Your task to perform on an android device: all mails in gmail Image 0: 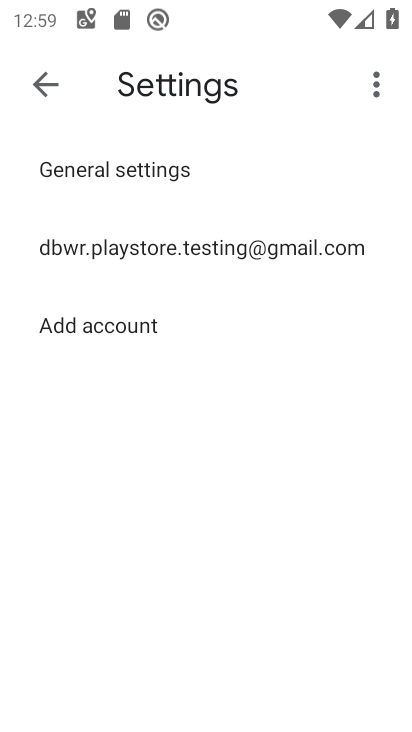
Step 0: press back button
Your task to perform on an android device: all mails in gmail Image 1: 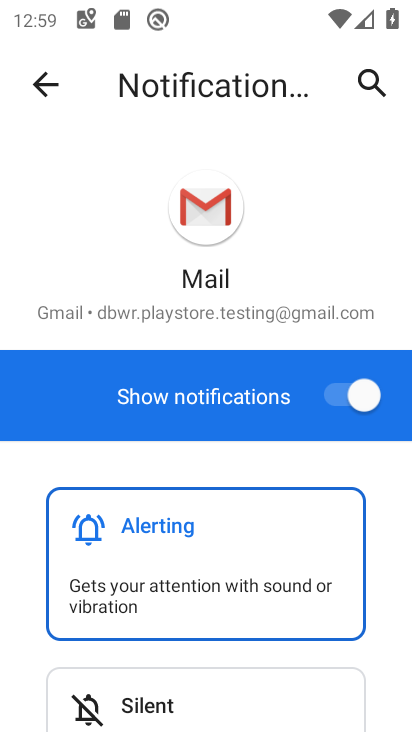
Step 1: press back button
Your task to perform on an android device: all mails in gmail Image 2: 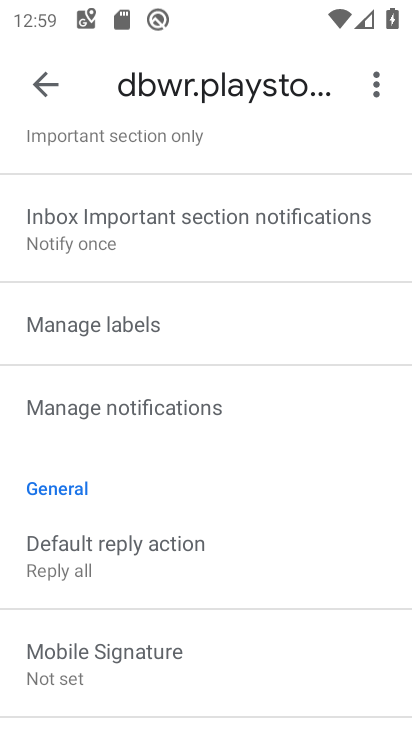
Step 2: press home button
Your task to perform on an android device: all mails in gmail Image 3: 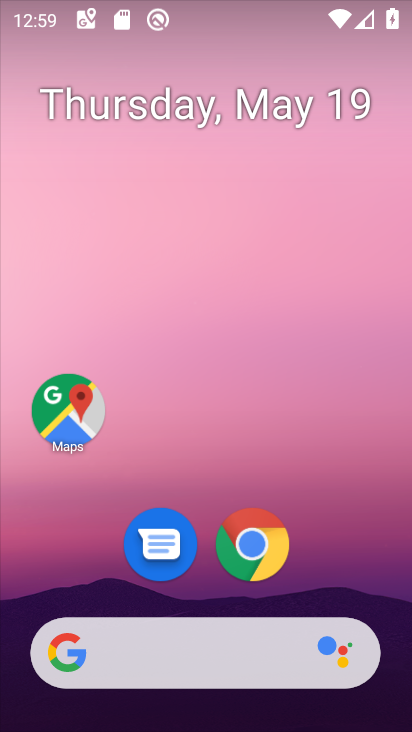
Step 3: drag from (165, 607) to (166, 81)
Your task to perform on an android device: all mails in gmail Image 4: 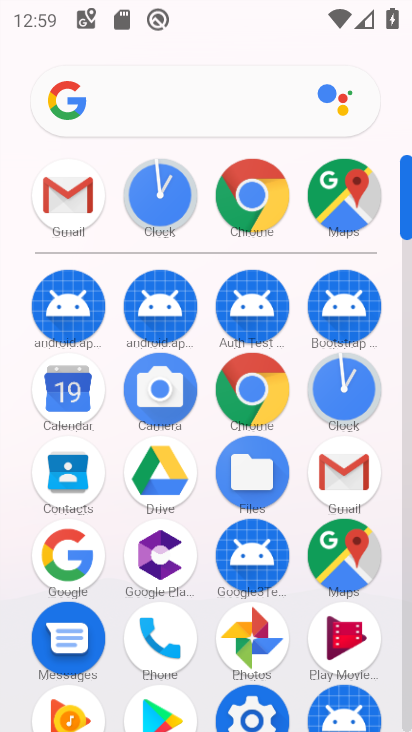
Step 4: click (376, 476)
Your task to perform on an android device: all mails in gmail Image 5: 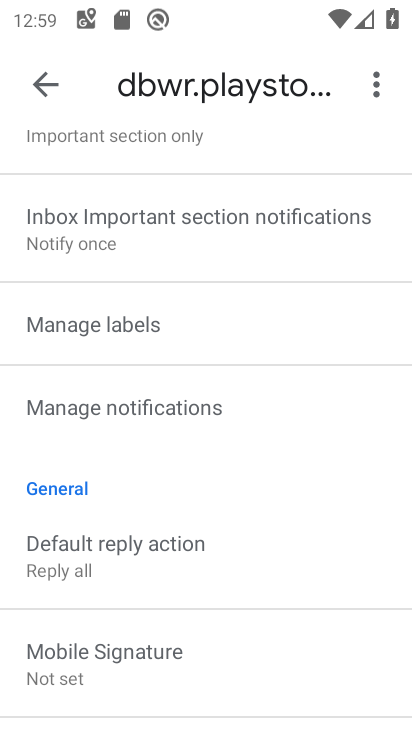
Step 5: press back button
Your task to perform on an android device: all mails in gmail Image 6: 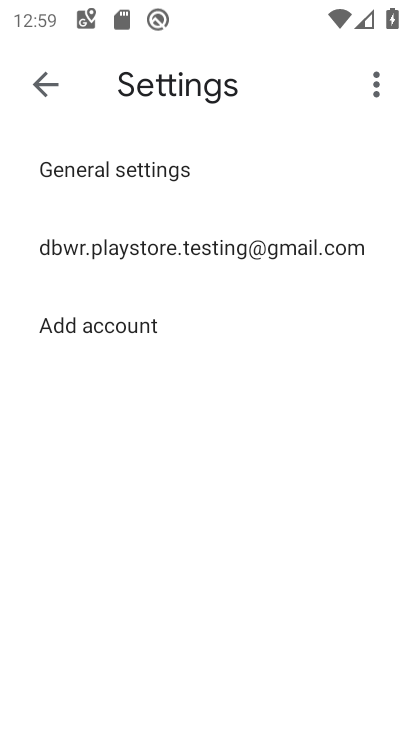
Step 6: press back button
Your task to perform on an android device: all mails in gmail Image 7: 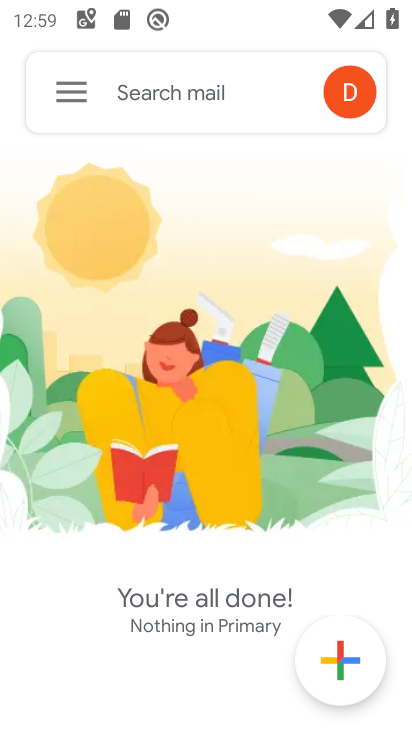
Step 7: click (84, 93)
Your task to perform on an android device: all mails in gmail Image 8: 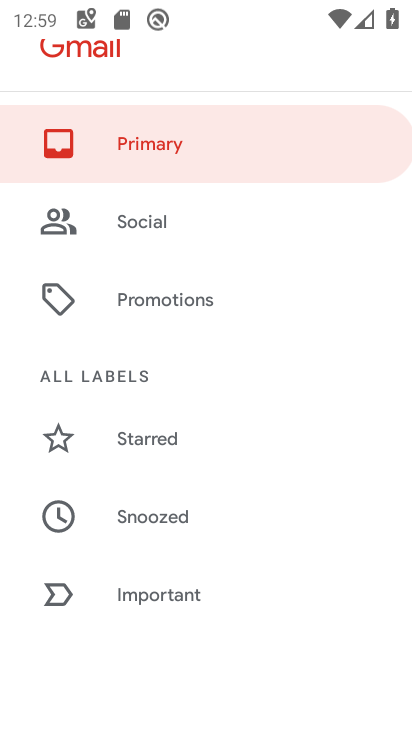
Step 8: drag from (213, 619) to (160, 132)
Your task to perform on an android device: all mails in gmail Image 9: 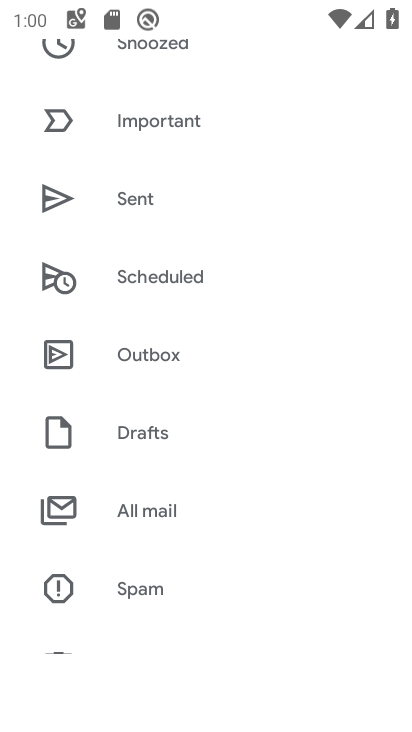
Step 9: click (152, 512)
Your task to perform on an android device: all mails in gmail Image 10: 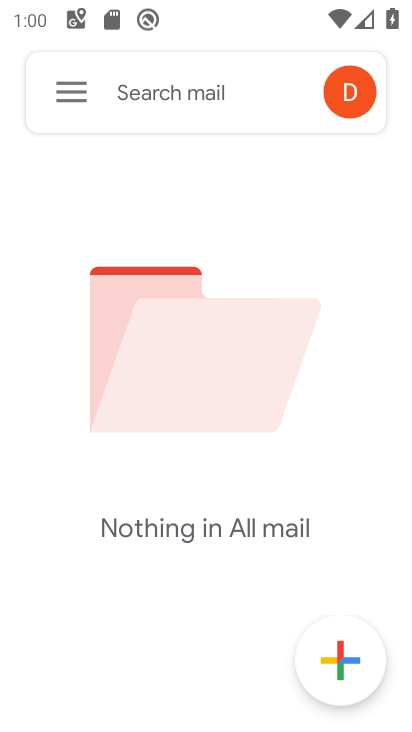
Step 10: task complete